Your task to perform on an android device: turn off notifications settings in the gmail app Image 0: 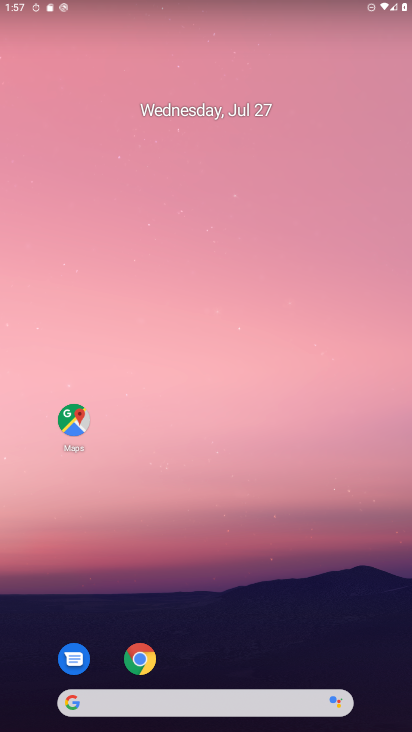
Step 0: drag from (302, 620) to (283, 122)
Your task to perform on an android device: turn off notifications settings in the gmail app Image 1: 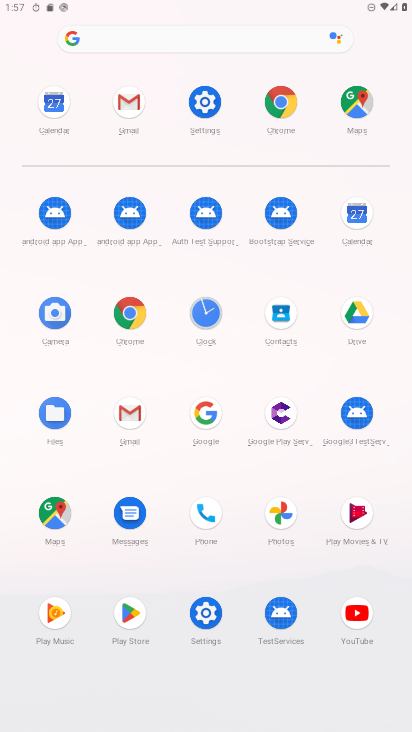
Step 1: click (121, 108)
Your task to perform on an android device: turn off notifications settings in the gmail app Image 2: 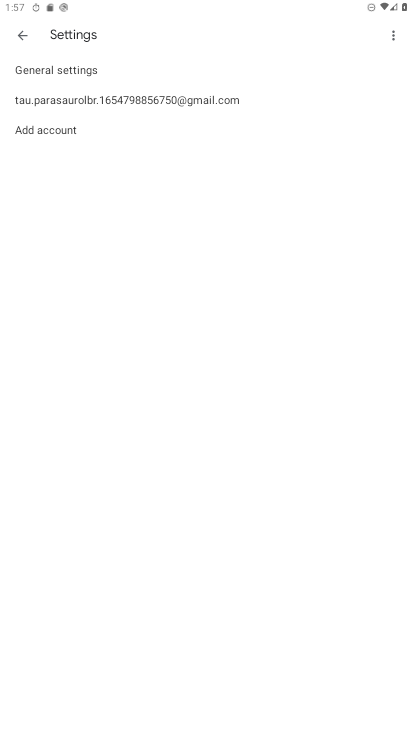
Step 2: click (121, 108)
Your task to perform on an android device: turn off notifications settings in the gmail app Image 3: 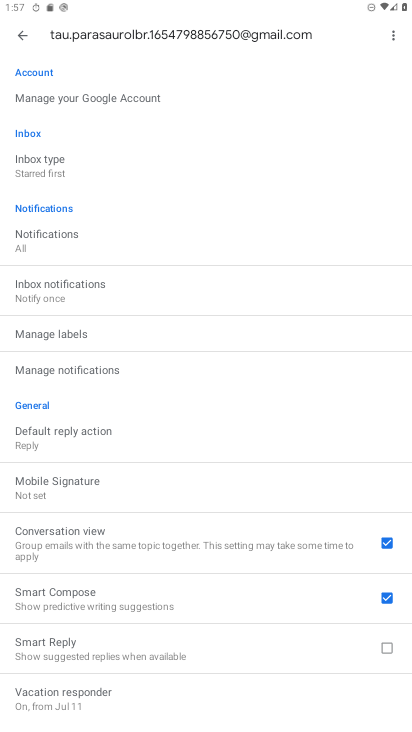
Step 3: click (91, 381)
Your task to perform on an android device: turn off notifications settings in the gmail app Image 4: 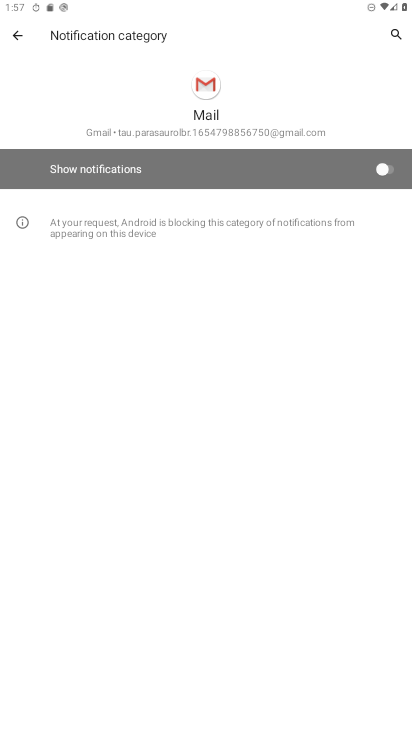
Step 4: task complete